Your task to perform on an android device: Go to sound settings Image 0: 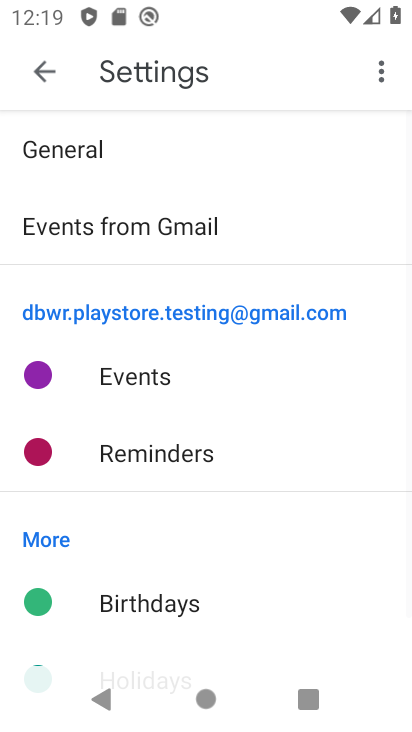
Step 0: click (396, 442)
Your task to perform on an android device: Go to sound settings Image 1: 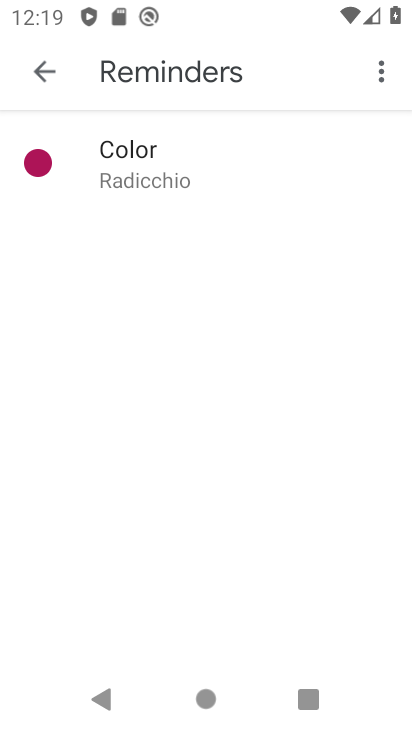
Step 1: press home button
Your task to perform on an android device: Go to sound settings Image 2: 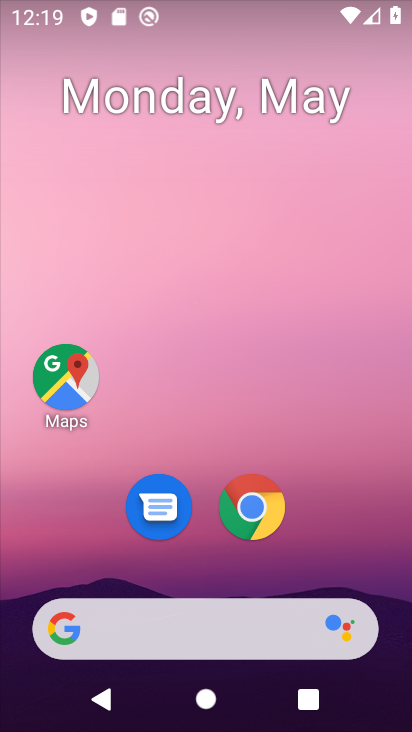
Step 2: drag from (236, 724) to (240, 20)
Your task to perform on an android device: Go to sound settings Image 3: 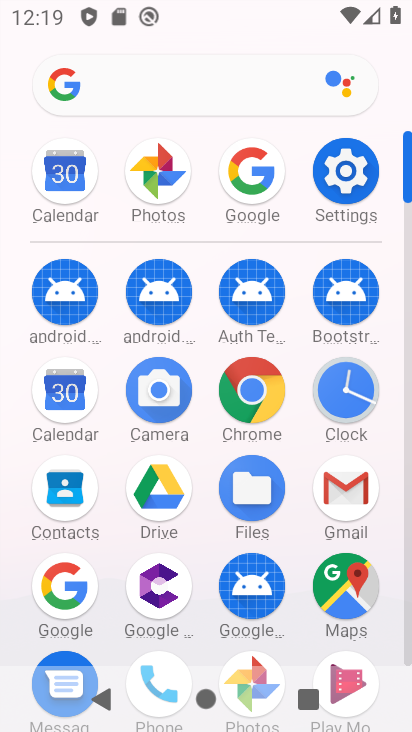
Step 3: click (336, 159)
Your task to perform on an android device: Go to sound settings Image 4: 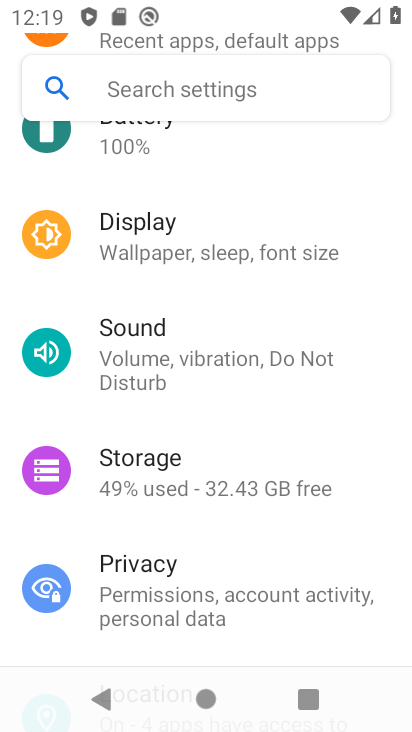
Step 4: click (139, 353)
Your task to perform on an android device: Go to sound settings Image 5: 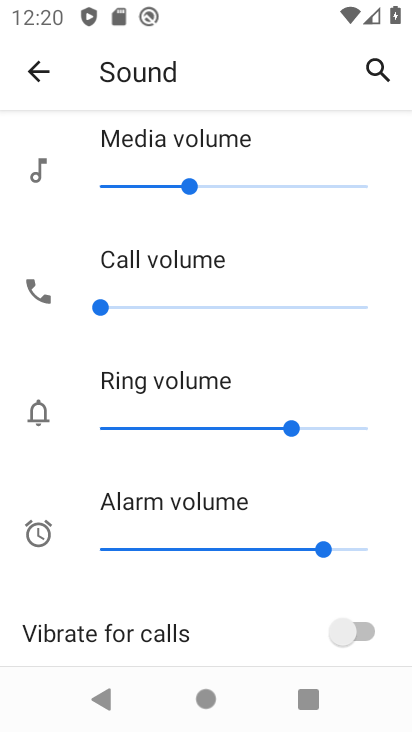
Step 5: task complete